Your task to perform on an android device: Open Google Chrome and open the bookmarks view Image 0: 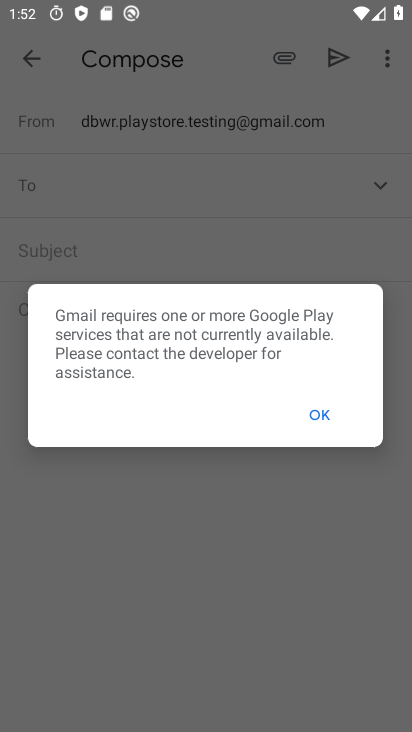
Step 0: press back button
Your task to perform on an android device: Open Google Chrome and open the bookmarks view Image 1: 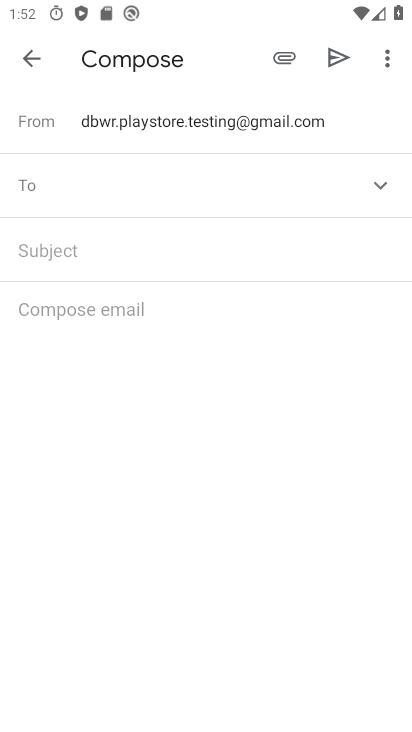
Step 1: press back button
Your task to perform on an android device: Open Google Chrome and open the bookmarks view Image 2: 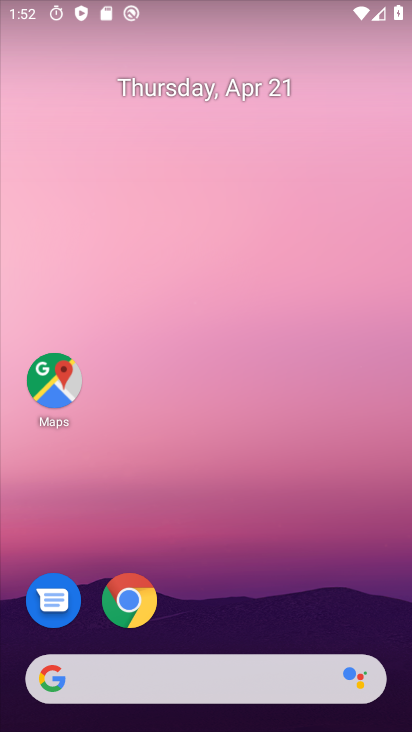
Step 2: click (122, 604)
Your task to perform on an android device: Open Google Chrome and open the bookmarks view Image 3: 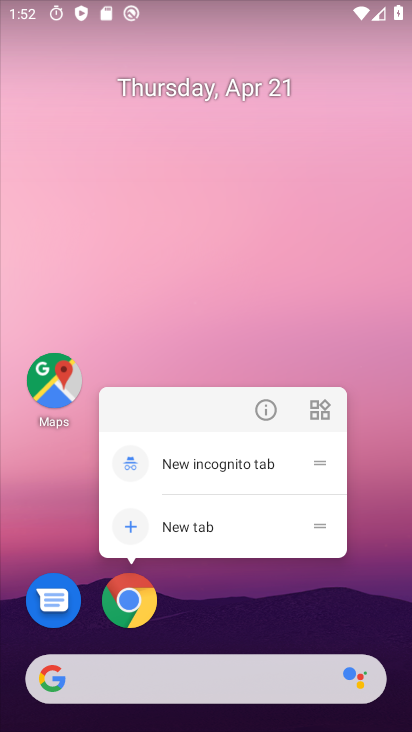
Step 3: click (136, 597)
Your task to perform on an android device: Open Google Chrome and open the bookmarks view Image 4: 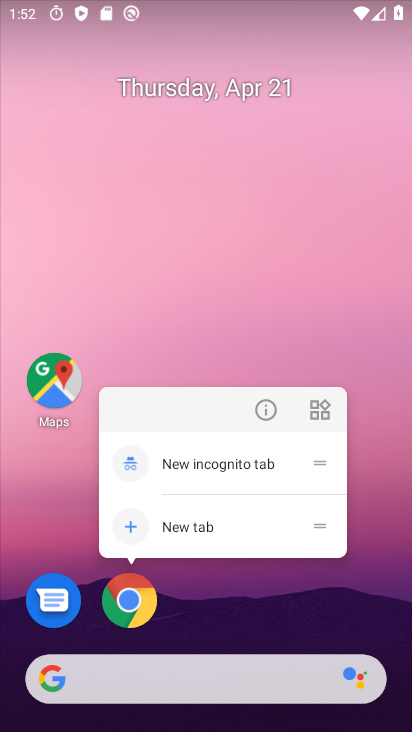
Step 4: click (131, 597)
Your task to perform on an android device: Open Google Chrome and open the bookmarks view Image 5: 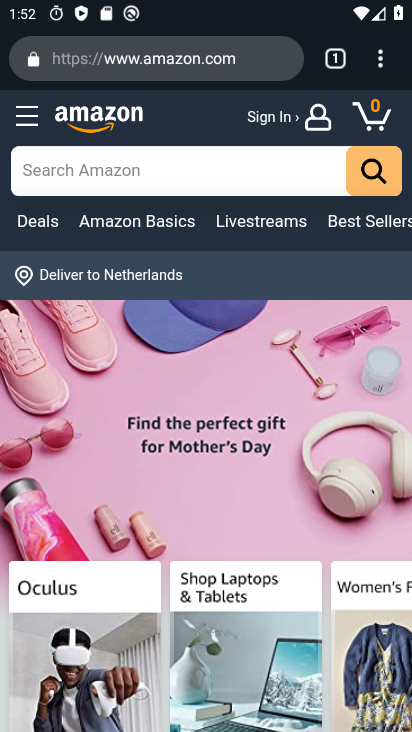
Step 5: task complete